Your task to perform on an android device: What's the weather today? Image 0: 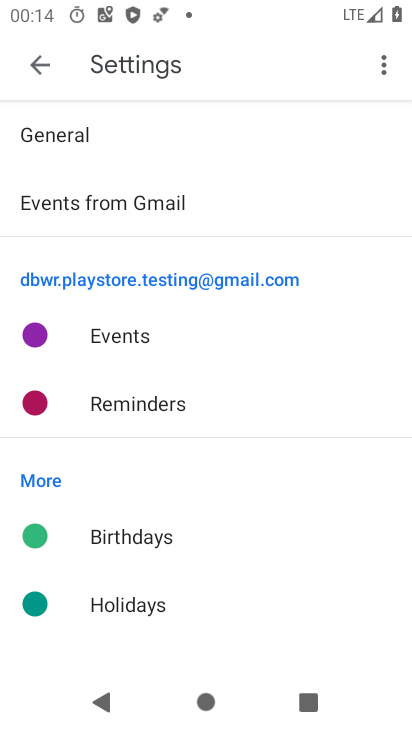
Step 0: drag from (202, 470) to (261, 162)
Your task to perform on an android device: What's the weather today? Image 1: 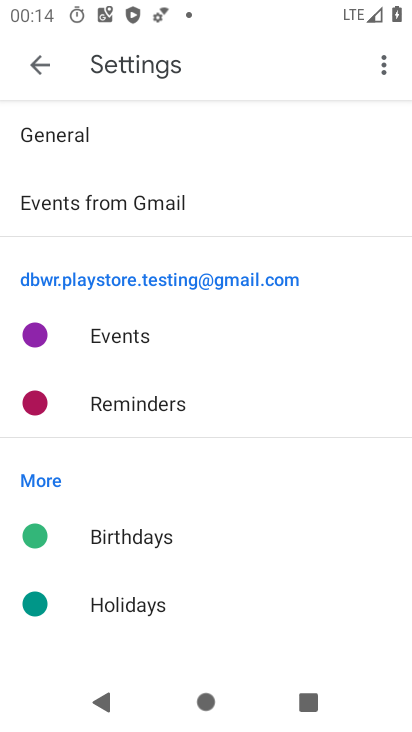
Step 1: drag from (252, 479) to (245, 212)
Your task to perform on an android device: What's the weather today? Image 2: 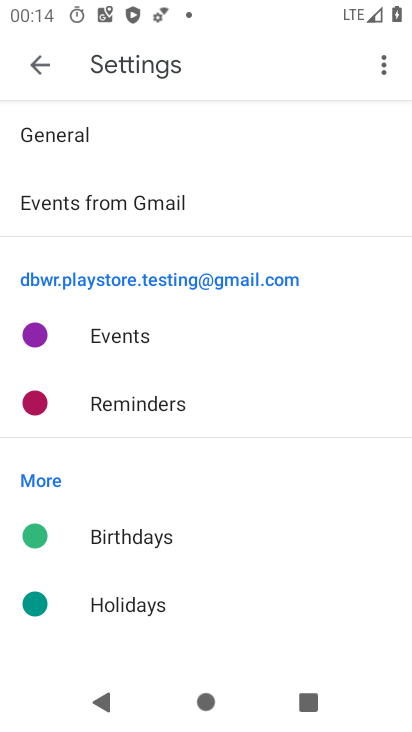
Step 2: press home button
Your task to perform on an android device: What's the weather today? Image 3: 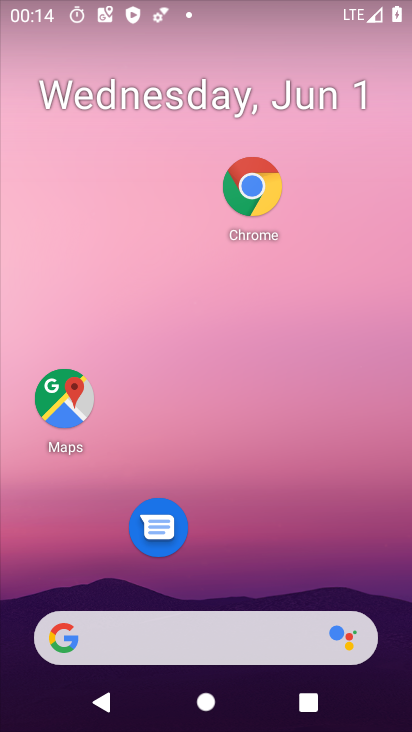
Step 3: drag from (179, 598) to (202, 141)
Your task to perform on an android device: What's the weather today? Image 4: 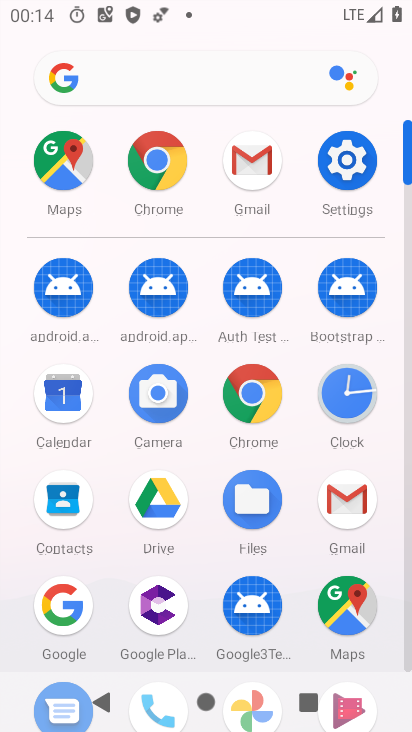
Step 4: click (172, 99)
Your task to perform on an android device: What's the weather today? Image 5: 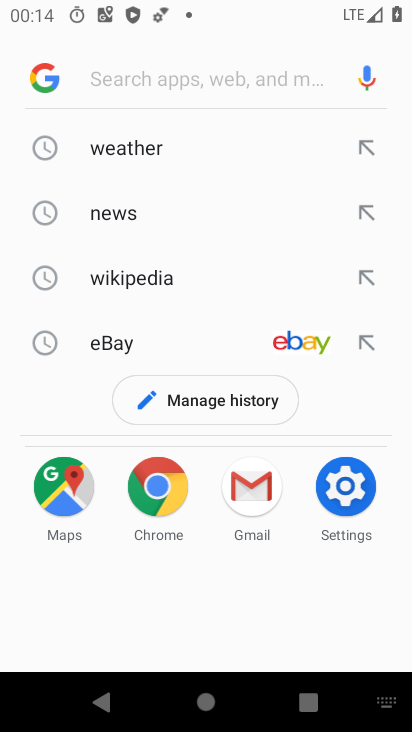
Step 5: type "weather today?"
Your task to perform on an android device: What's the weather today? Image 6: 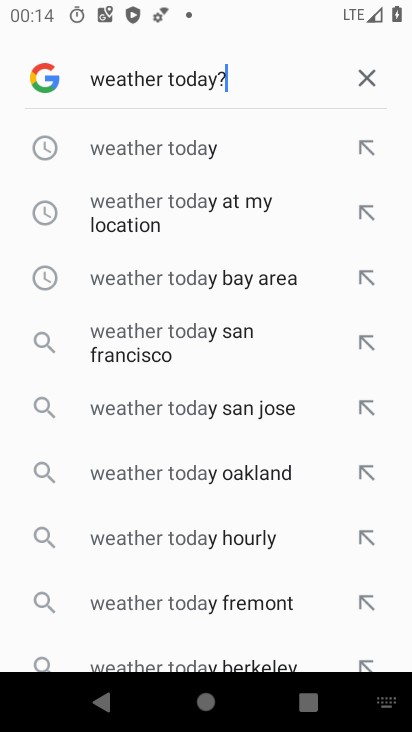
Step 6: type ""
Your task to perform on an android device: What's the weather today? Image 7: 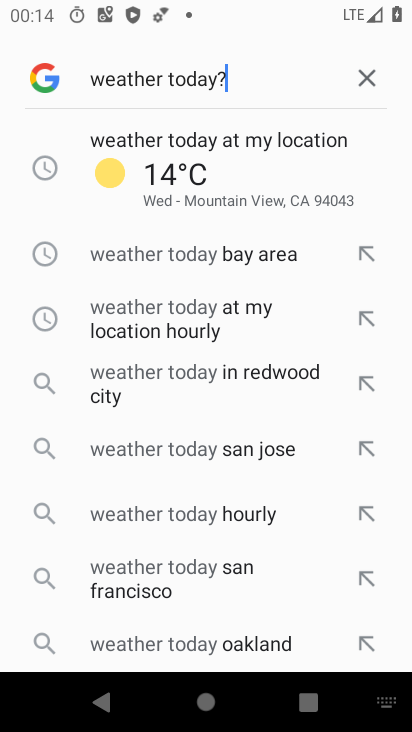
Step 7: click (146, 164)
Your task to perform on an android device: What's the weather today? Image 8: 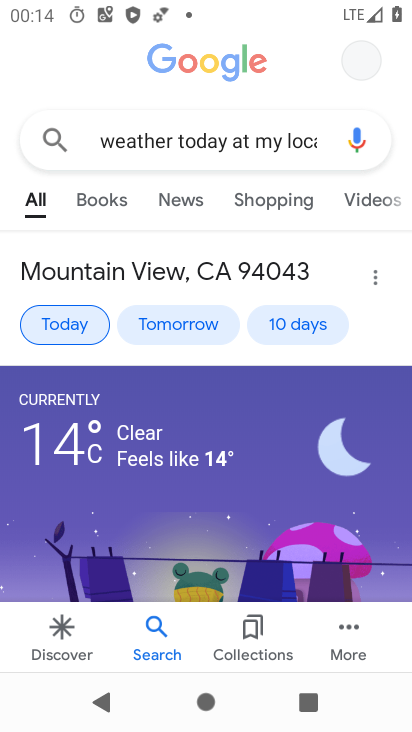
Step 8: task complete